Your task to perform on an android device: toggle airplane mode Image 0: 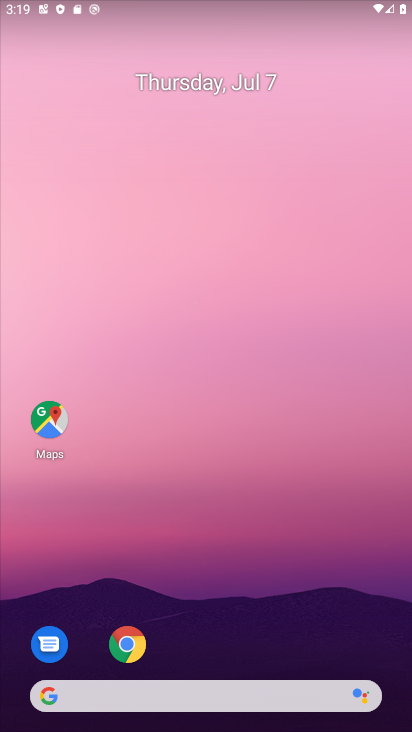
Step 0: drag from (179, 646) to (111, 0)
Your task to perform on an android device: toggle airplane mode Image 1: 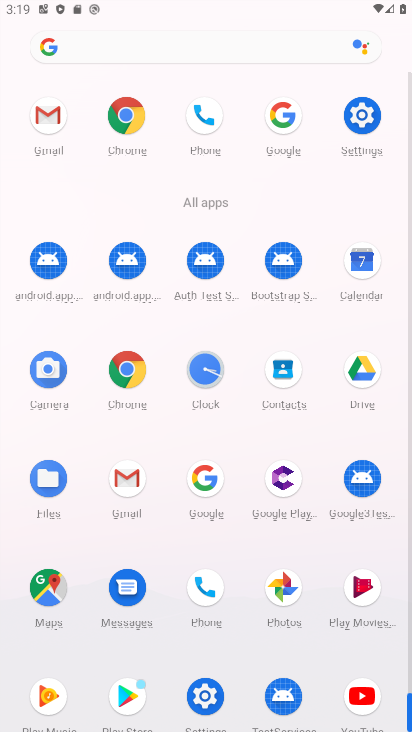
Step 1: click (367, 108)
Your task to perform on an android device: toggle airplane mode Image 2: 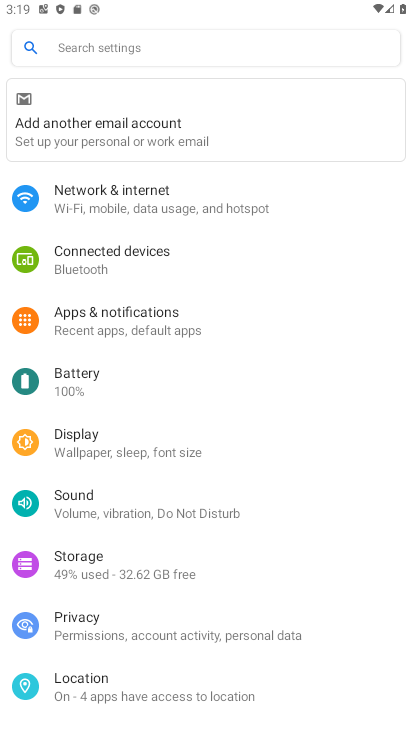
Step 2: click (168, 196)
Your task to perform on an android device: toggle airplane mode Image 3: 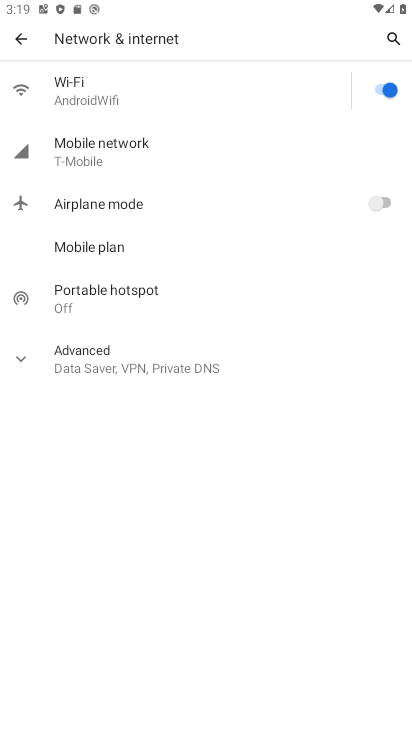
Step 3: click (376, 195)
Your task to perform on an android device: toggle airplane mode Image 4: 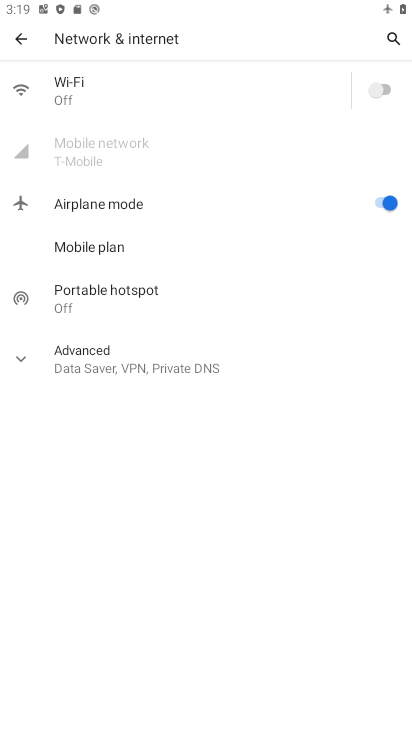
Step 4: task complete